Your task to perform on an android device: star an email in the gmail app Image 0: 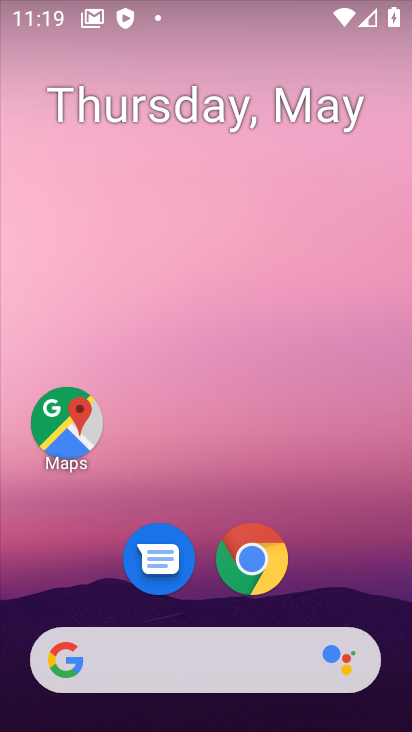
Step 0: drag from (223, 718) to (191, 209)
Your task to perform on an android device: star an email in the gmail app Image 1: 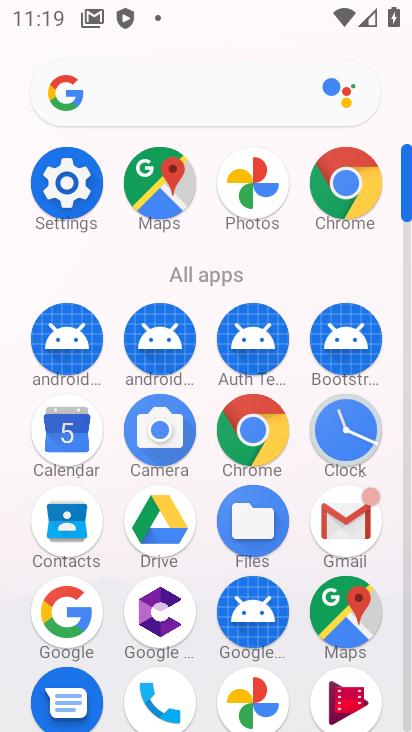
Step 1: click (354, 514)
Your task to perform on an android device: star an email in the gmail app Image 2: 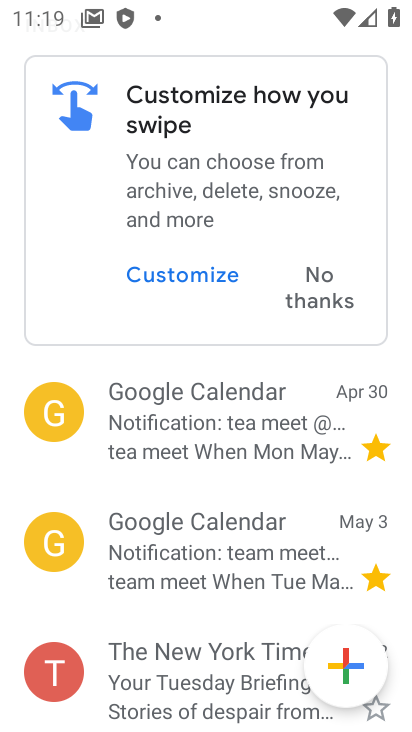
Step 2: drag from (194, 670) to (179, 335)
Your task to perform on an android device: star an email in the gmail app Image 3: 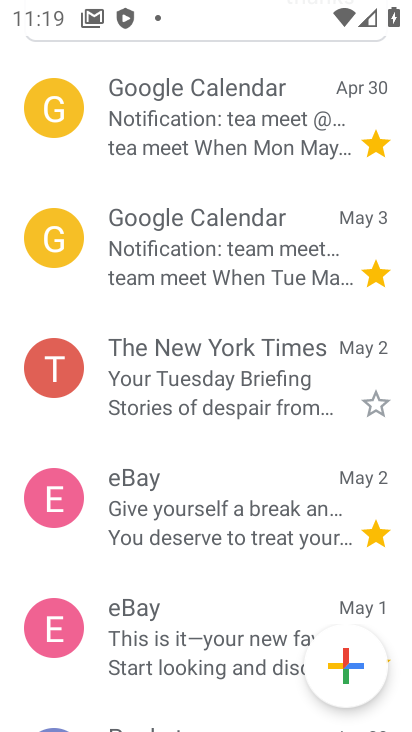
Step 3: click (376, 401)
Your task to perform on an android device: star an email in the gmail app Image 4: 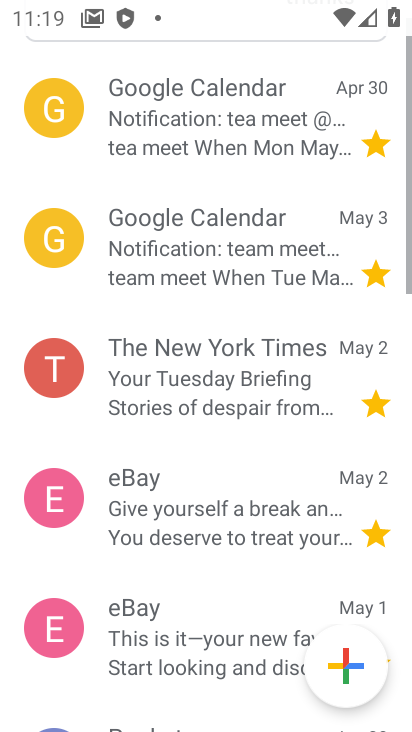
Step 4: task complete